Your task to perform on an android device: Search for vegetarian restaurants on Maps Image 0: 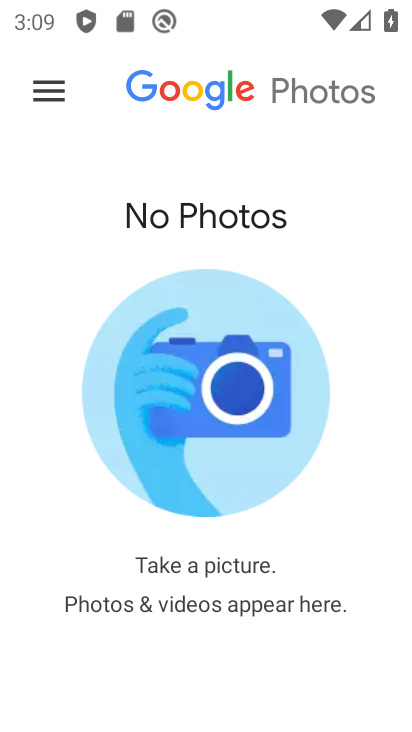
Step 0: press home button
Your task to perform on an android device: Search for vegetarian restaurants on Maps Image 1: 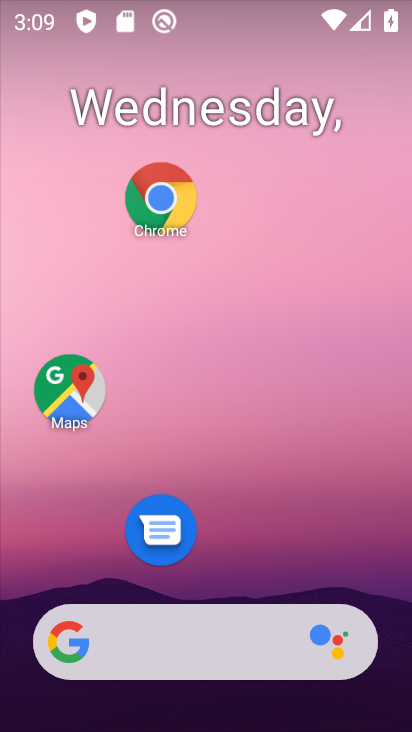
Step 1: drag from (266, 691) to (311, 23)
Your task to perform on an android device: Search for vegetarian restaurants on Maps Image 2: 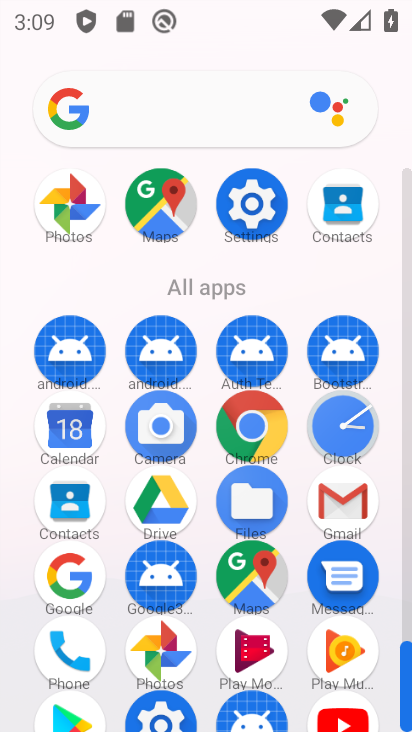
Step 2: click (154, 205)
Your task to perform on an android device: Search for vegetarian restaurants on Maps Image 3: 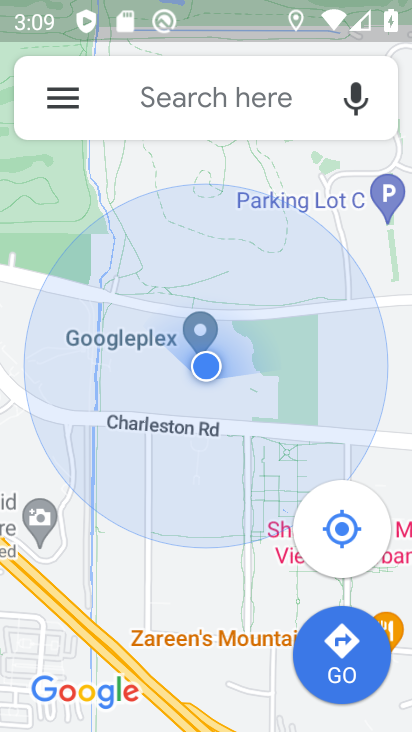
Step 3: click (157, 91)
Your task to perform on an android device: Search for vegetarian restaurants on Maps Image 4: 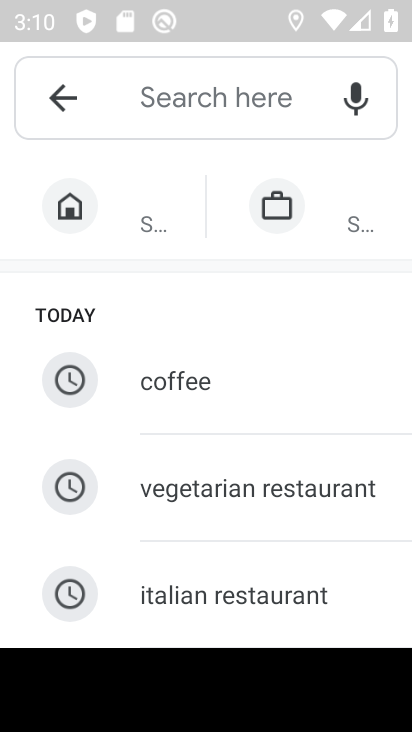
Step 4: click (215, 498)
Your task to perform on an android device: Search for vegetarian restaurants on Maps Image 5: 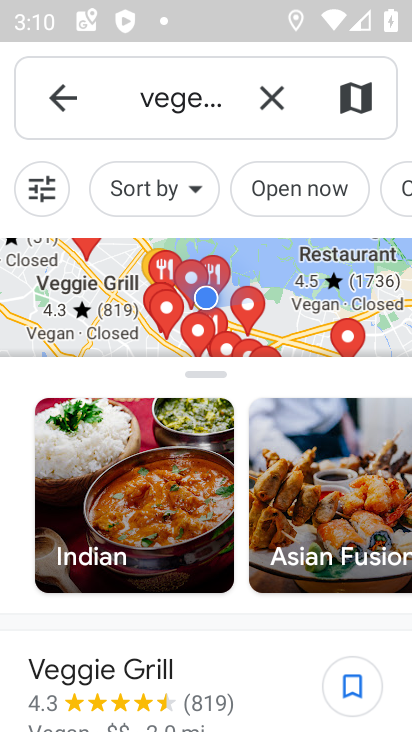
Step 5: task complete